Your task to perform on an android device: open app "Microsoft Authenticator" (install if not already installed), go to login, and select forgot password Image 0: 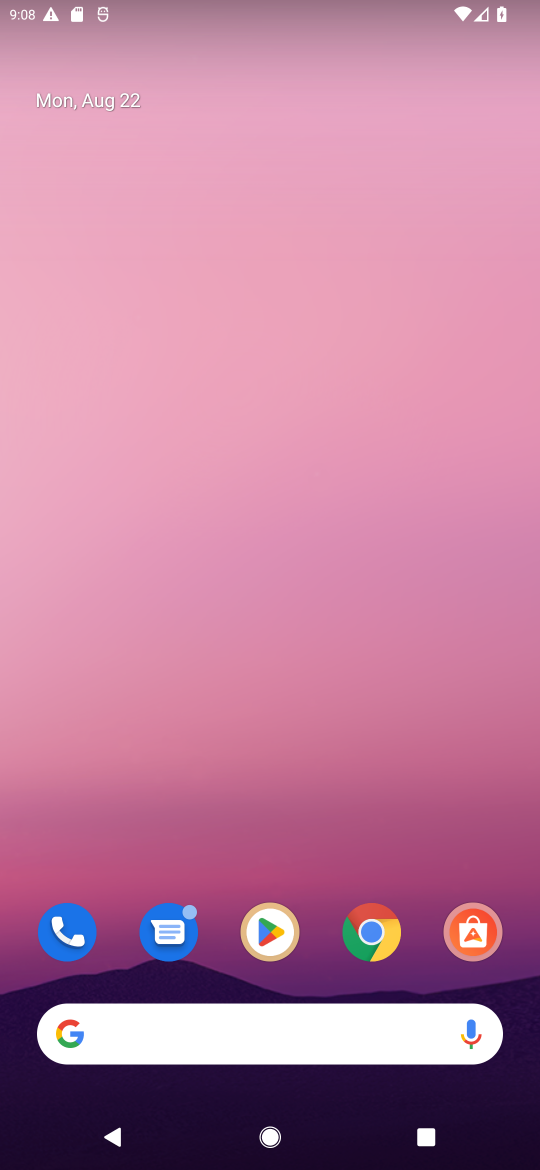
Step 0: click (262, 952)
Your task to perform on an android device: open app "Microsoft Authenticator" (install if not already installed), go to login, and select forgot password Image 1: 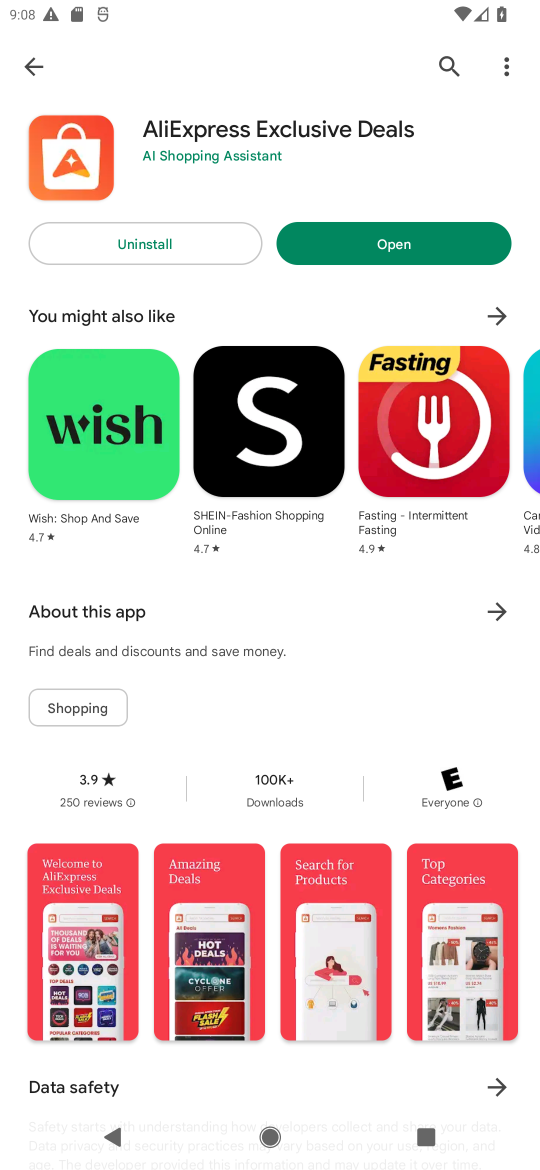
Step 1: click (437, 86)
Your task to perform on an android device: open app "Microsoft Authenticator" (install if not already installed), go to login, and select forgot password Image 2: 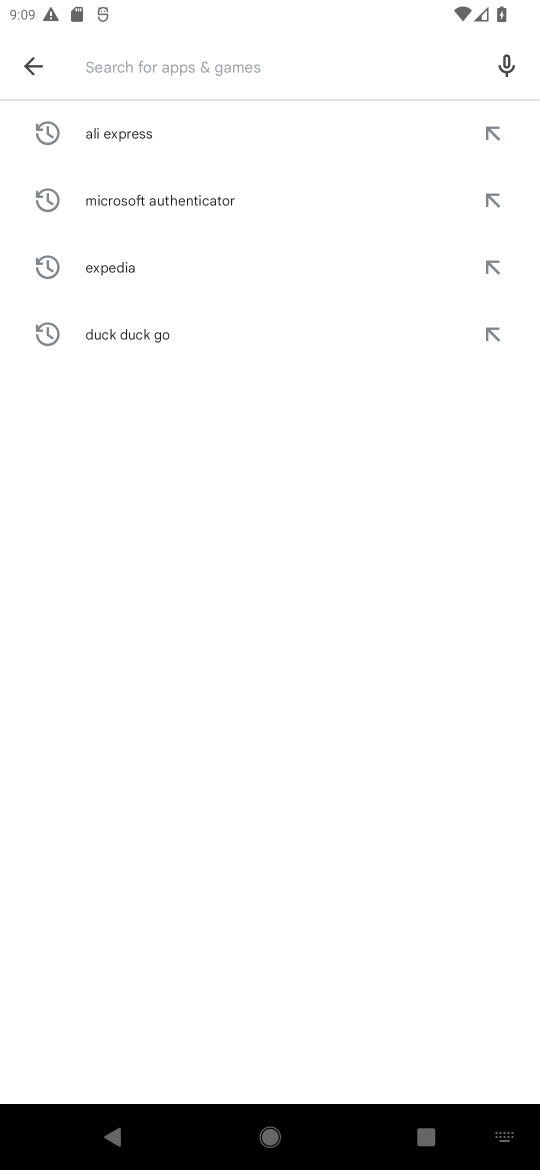
Step 2: click (243, 197)
Your task to perform on an android device: open app "Microsoft Authenticator" (install if not already installed), go to login, and select forgot password Image 3: 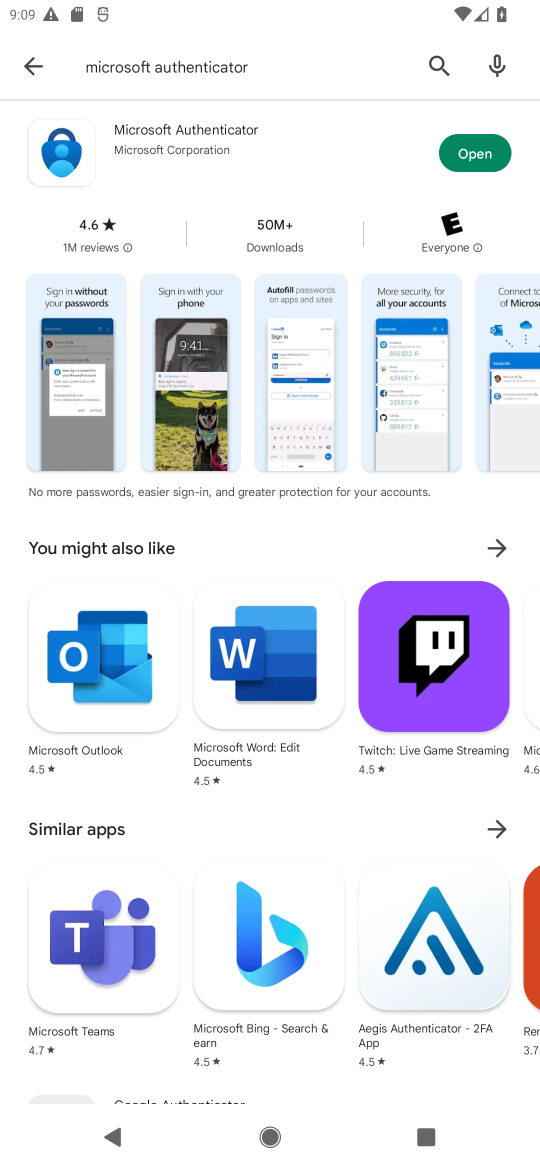
Step 3: click (460, 167)
Your task to perform on an android device: open app "Microsoft Authenticator" (install if not already installed), go to login, and select forgot password Image 4: 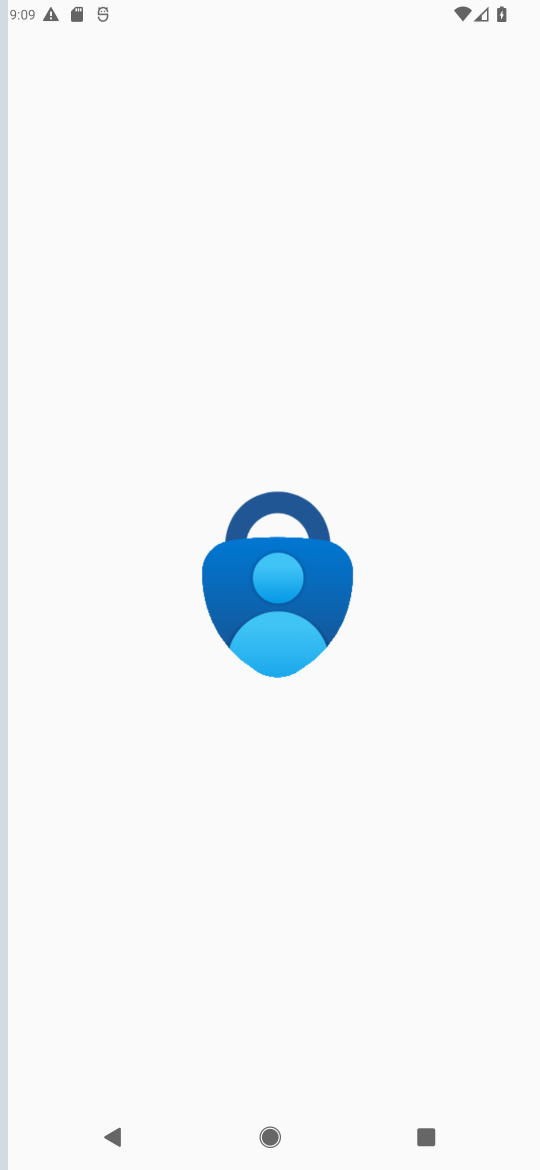
Step 4: task complete